Your task to perform on an android device: What's the weather? Image 0: 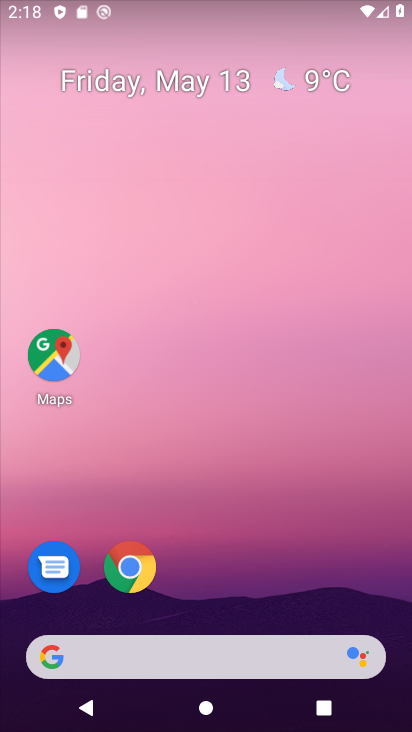
Step 0: click (337, 89)
Your task to perform on an android device: What's the weather? Image 1: 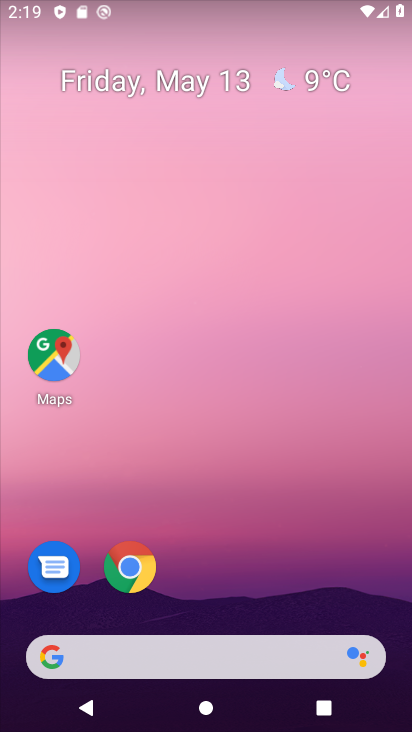
Step 1: click (325, 88)
Your task to perform on an android device: What's the weather? Image 2: 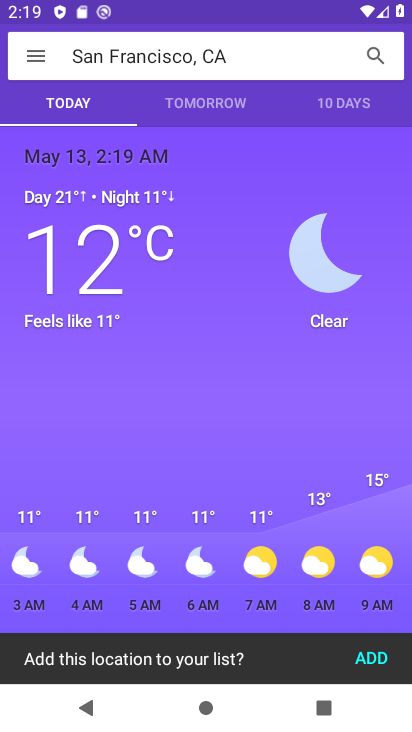
Step 2: task complete